Your task to perform on an android device: change timer sound Image 0: 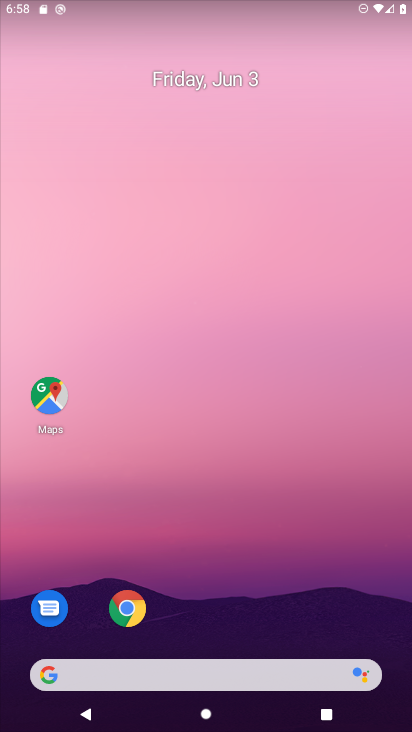
Step 0: drag from (175, 283) to (175, 231)
Your task to perform on an android device: change timer sound Image 1: 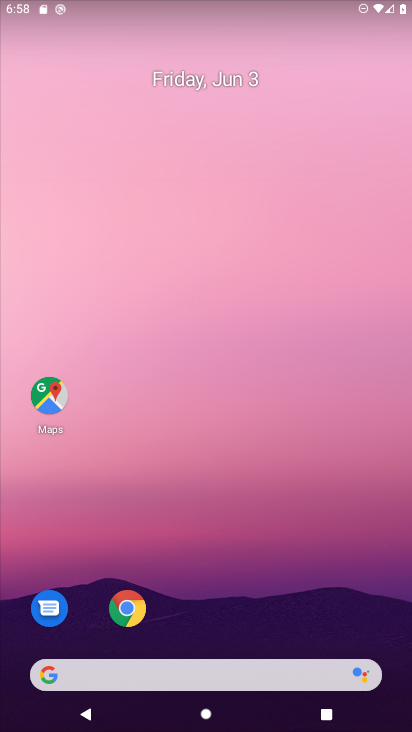
Step 1: drag from (190, 627) to (212, 139)
Your task to perform on an android device: change timer sound Image 2: 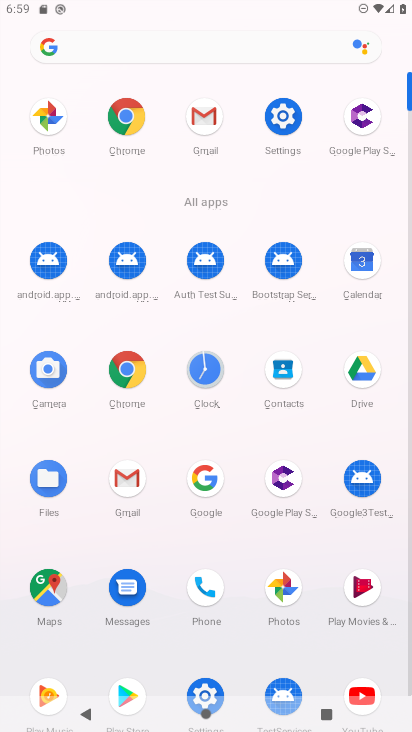
Step 2: click (265, 117)
Your task to perform on an android device: change timer sound Image 3: 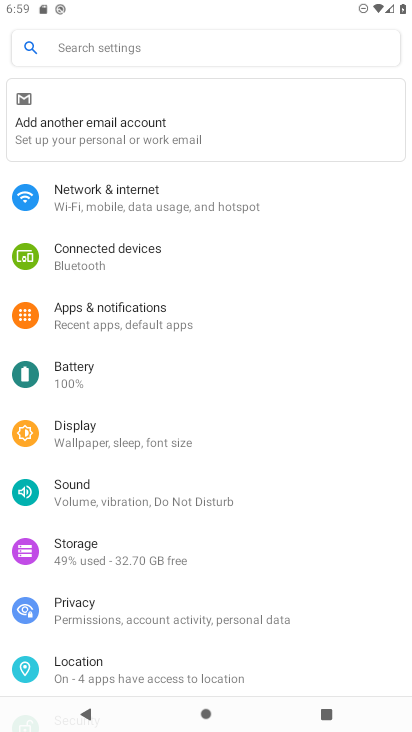
Step 3: click (101, 499)
Your task to perform on an android device: change timer sound Image 4: 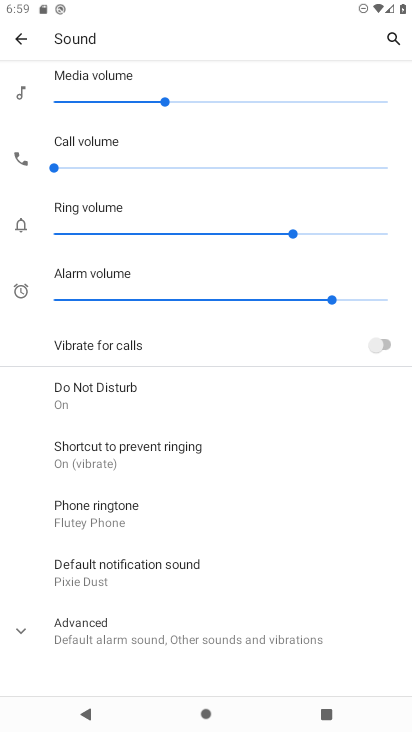
Step 4: task complete